Your task to perform on an android device: Go to Wikipedia Image 0: 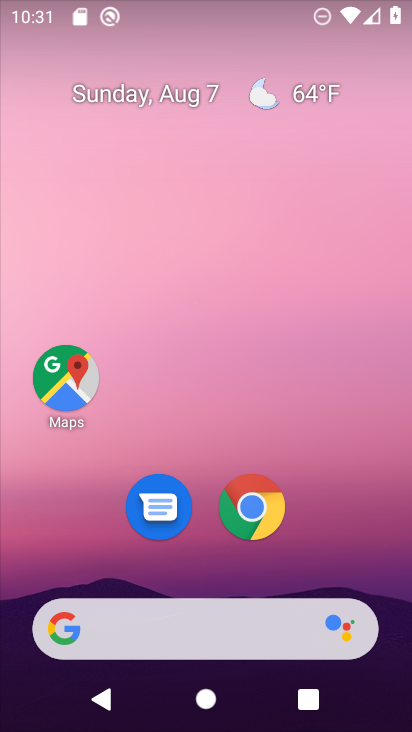
Step 0: drag from (343, 453) to (275, 56)
Your task to perform on an android device: Go to Wikipedia Image 1: 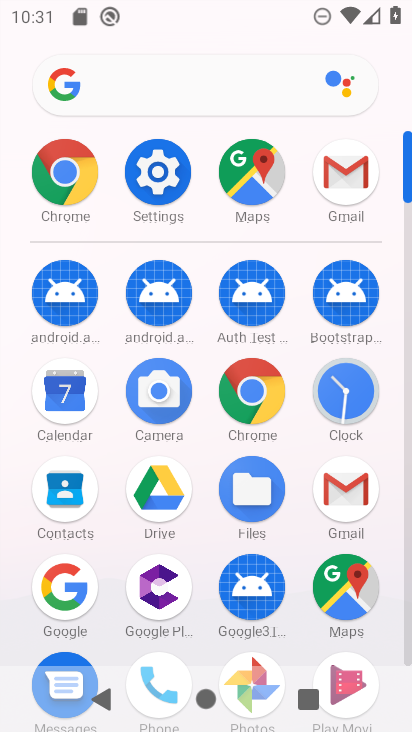
Step 1: click (254, 392)
Your task to perform on an android device: Go to Wikipedia Image 2: 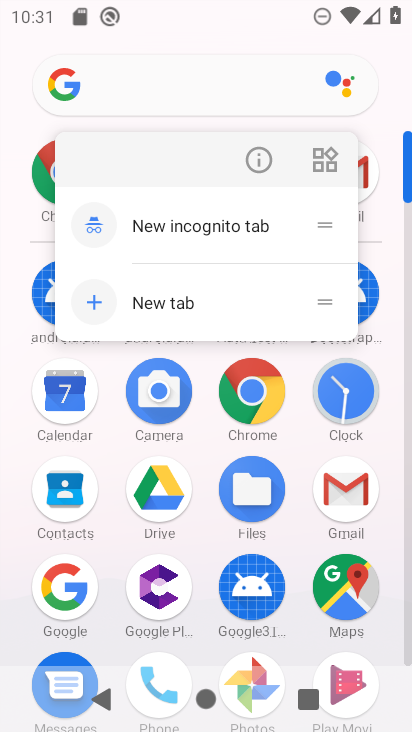
Step 2: click (254, 392)
Your task to perform on an android device: Go to Wikipedia Image 3: 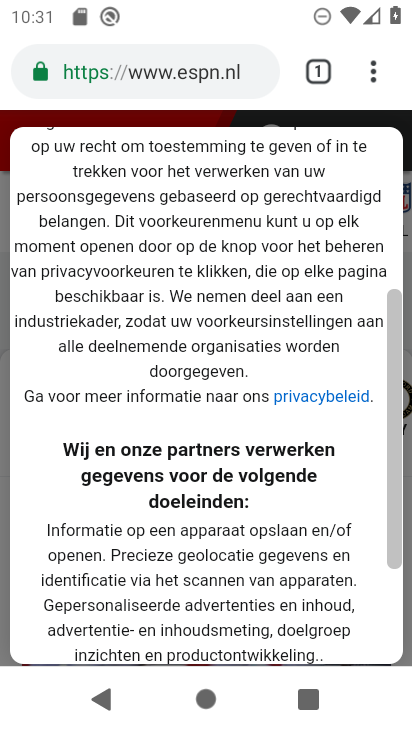
Step 3: click (189, 65)
Your task to perform on an android device: Go to Wikipedia Image 4: 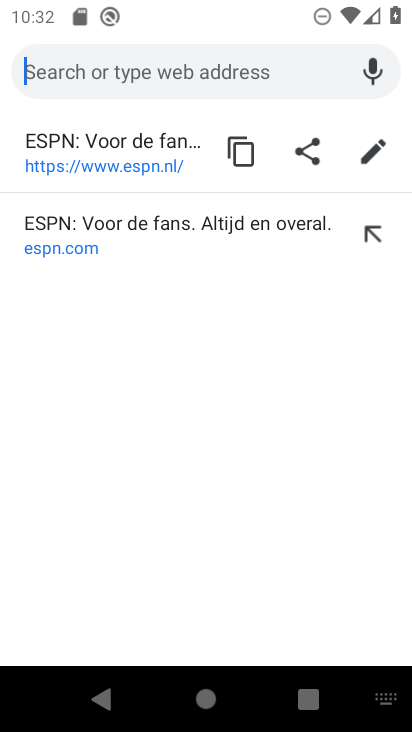
Step 4: type "wikiped"
Your task to perform on an android device: Go to Wikipedia Image 5: 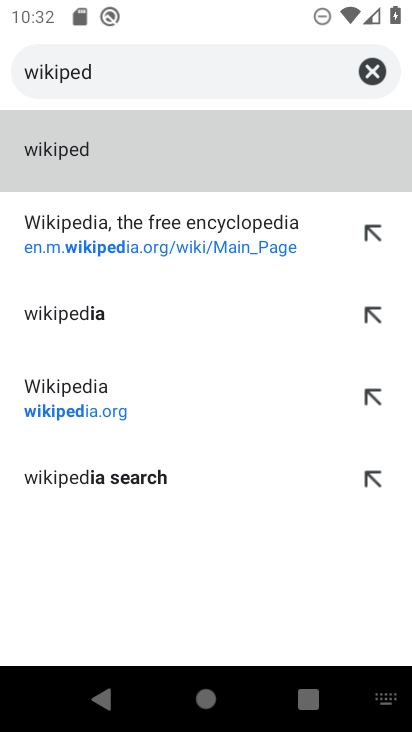
Step 5: click (63, 406)
Your task to perform on an android device: Go to Wikipedia Image 6: 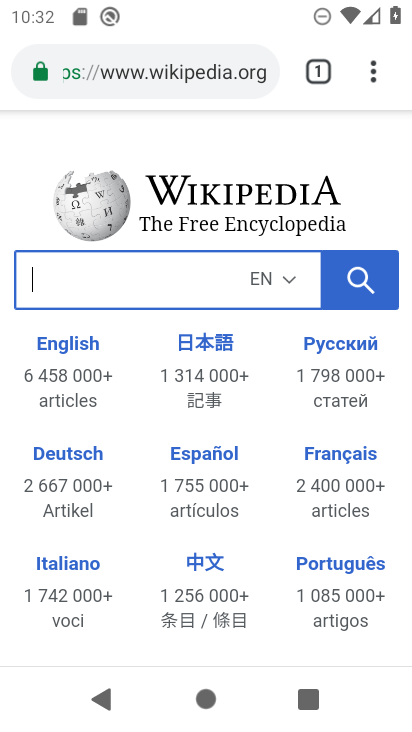
Step 6: task complete